Your task to perform on an android device: open chrome privacy settings Image 0: 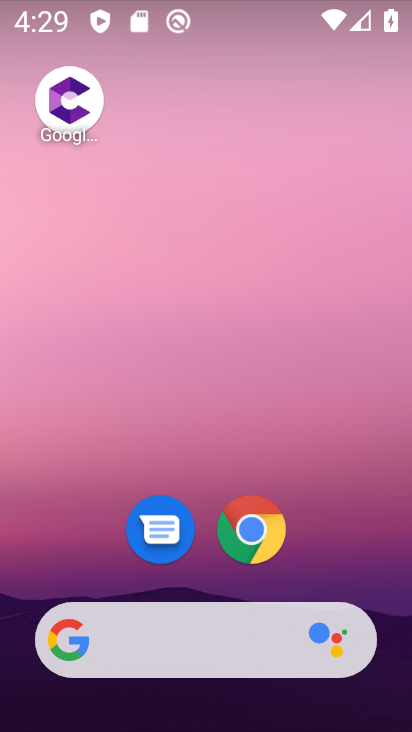
Step 0: drag from (195, 441) to (214, 240)
Your task to perform on an android device: open chrome privacy settings Image 1: 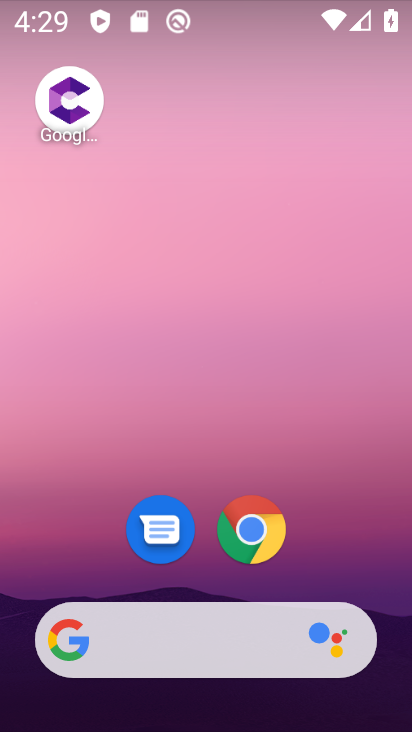
Step 1: click (201, 582)
Your task to perform on an android device: open chrome privacy settings Image 2: 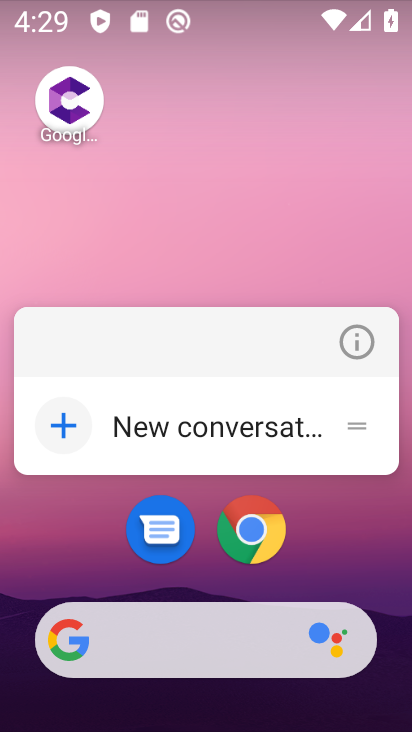
Step 2: click (255, 519)
Your task to perform on an android device: open chrome privacy settings Image 3: 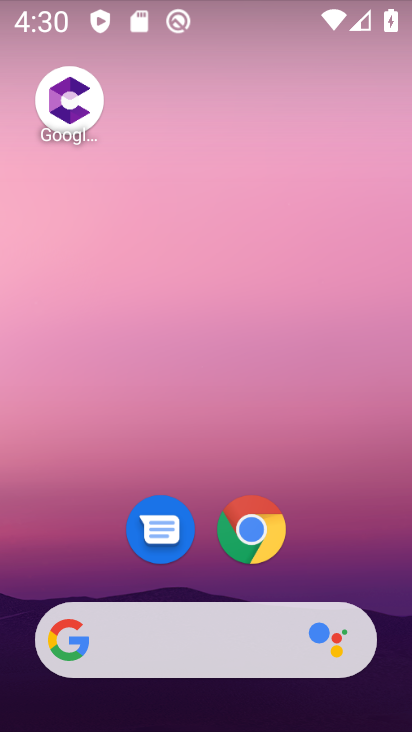
Step 3: click (253, 525)
Your task to perform on an android device: open chrome privacy settings Image 4: 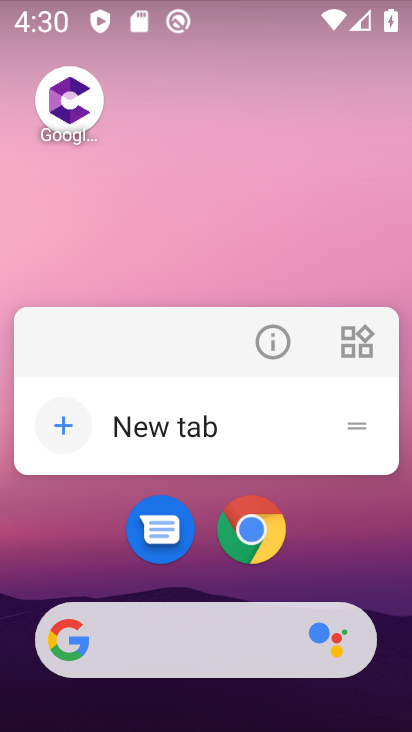
Step 4: click (289, 566)
Your task to perform on an android device: open chrome privacy settings Image 5: 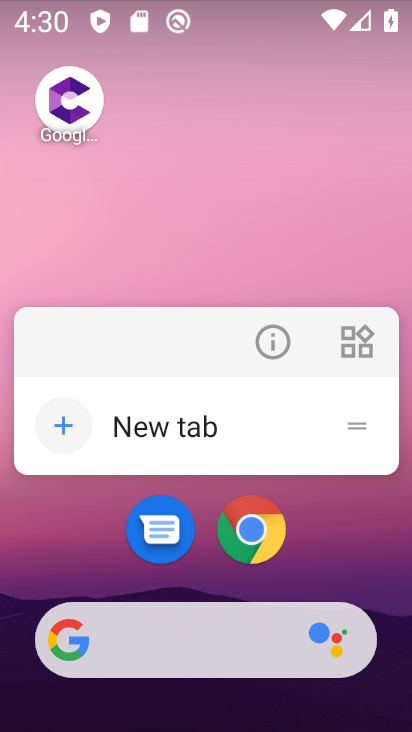
Step 5: drag from (235, 585) to (237, 170)
Your task to perform on an android device: open chrome privacy settings Image 6: 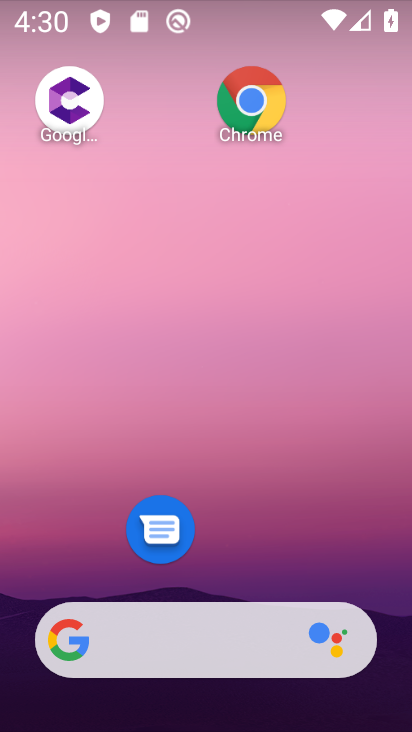
Step 6: click (258, 105)
Your task to perform on an android device: open chrome privacy settings Image 7: 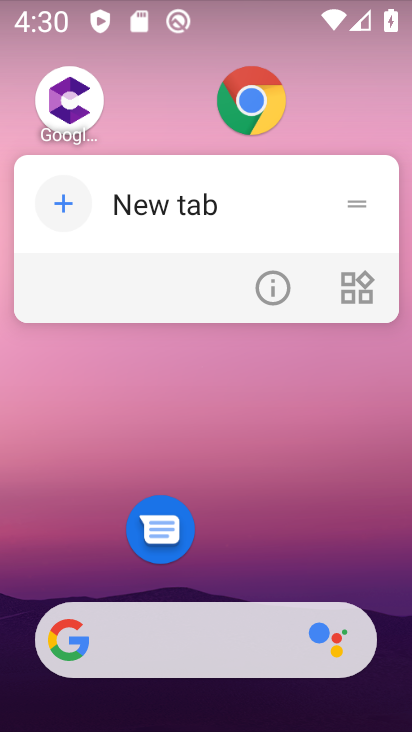
Step 7: click (244, 104)
Your task to perform on an android device: open chrome privacy settings Image 8: 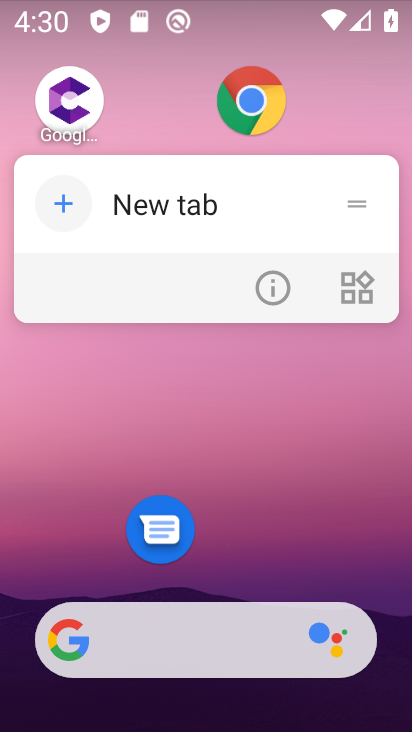
Step 8: drag from (244, 537) to (301, 93)
Your task to perform on an android device: open chrome privacy settings Image 9: 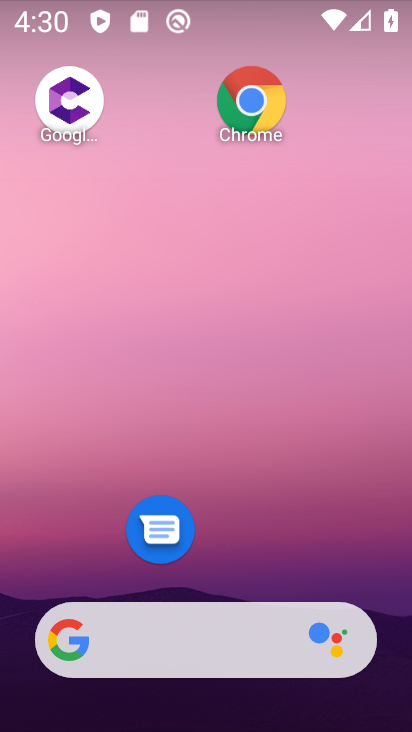
Step 9: click (258, 101)
Your task to perform on an android device: open chrome privacy settings Image 10: 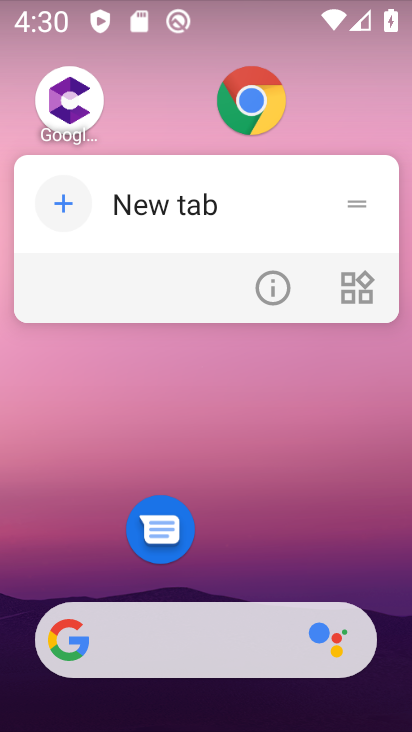
Step 10: click (251, 100)
Your task to perform on an android device: open chrome privacy settings Image 11: 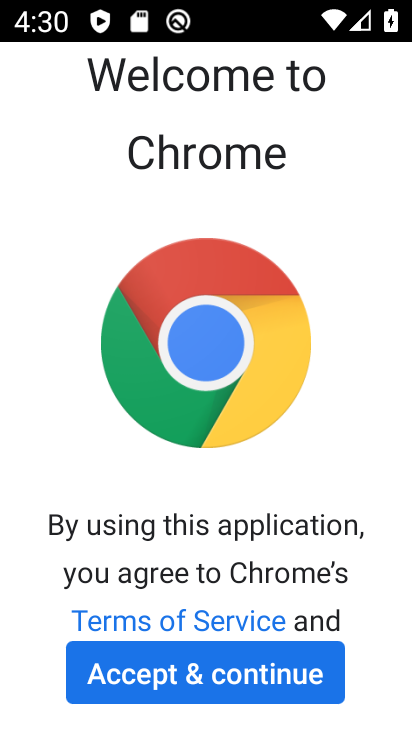
Step 11: click (131, 689)
Your task to perform on an android device: open chrome privacy settings Image 12: 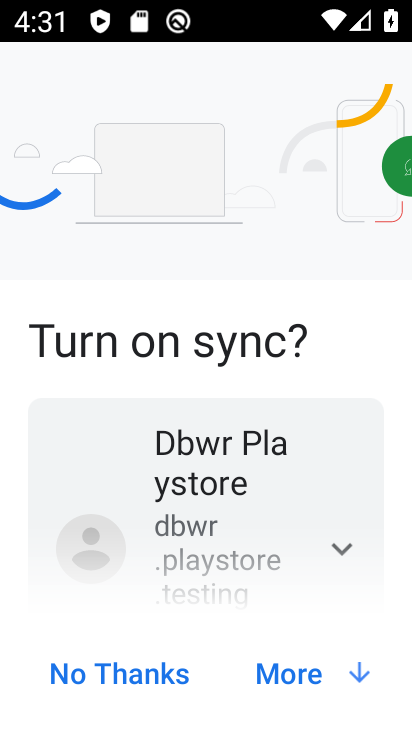
Step 12: click (310, 668)
Your task to perform on an android device: open chrome privacy settings Image 13: 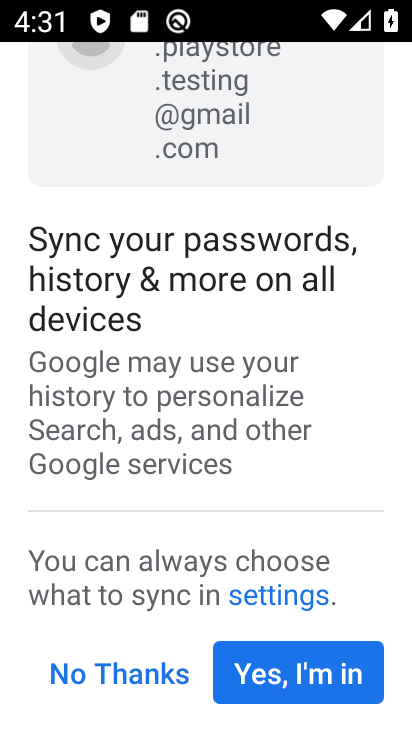
Step 13: click (309, 676)
Your task to perform on an android device: open chrome privacy settings Image 14: 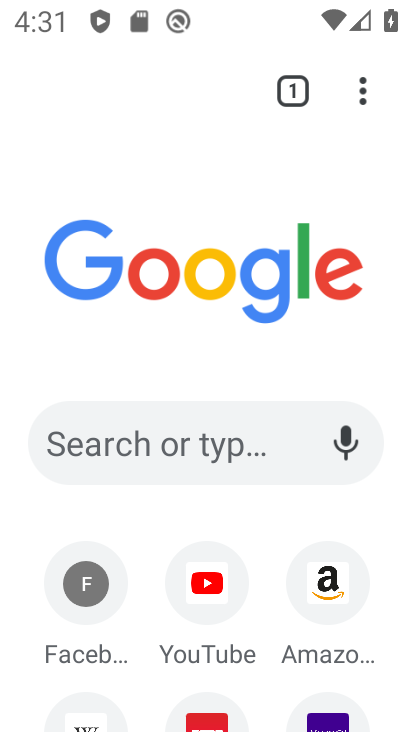
Step 14: click (362, 85)
Your task to perform on an android device: open chrome privacy settings Image 15: 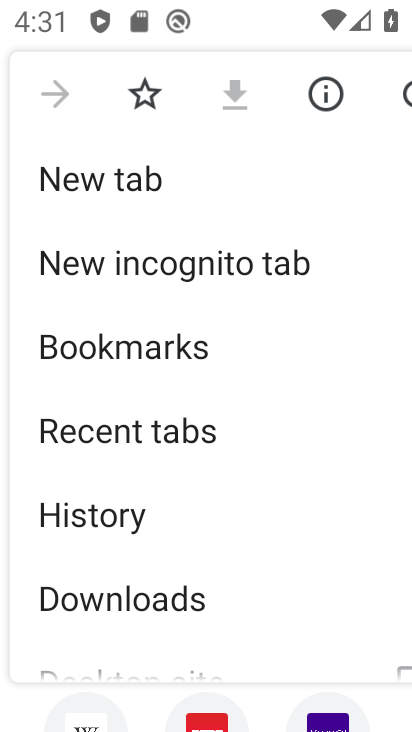
Step 15: drag from (186, 569) to (132, 557)
Your task to perform on an android device: open chrome privacy settings Image 16: 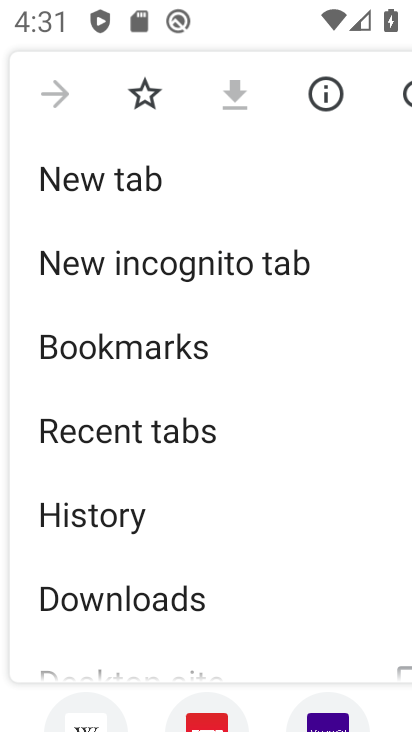
Step 16: drag from (137, 387) to (165, 131)
Your task to perform on an android device: open chrome privacy settings Image 17: 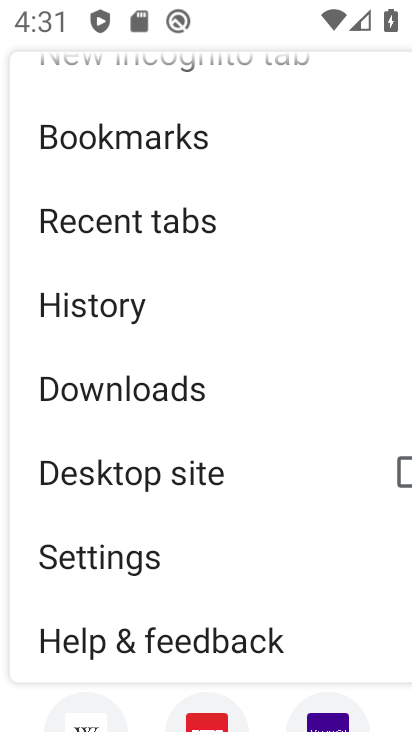
Step 17: click (91, 549)
Your task to perform on an android device: open chrome privacy settings Image 18: 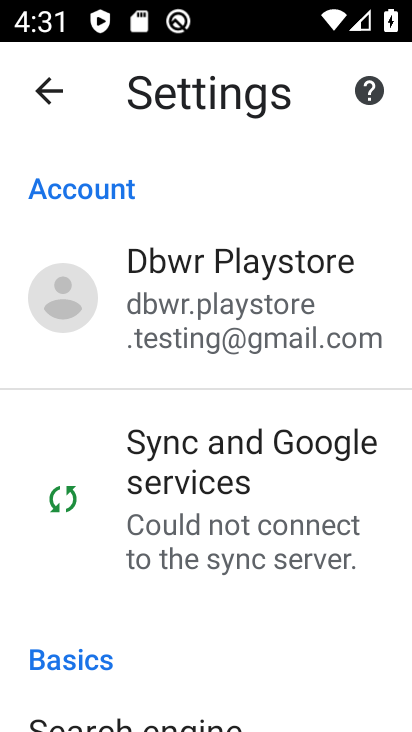
Step 18: drag from (137, 611) to (195, 328)
Your task to perform on an android device: open chrome privacy settings Image 19: 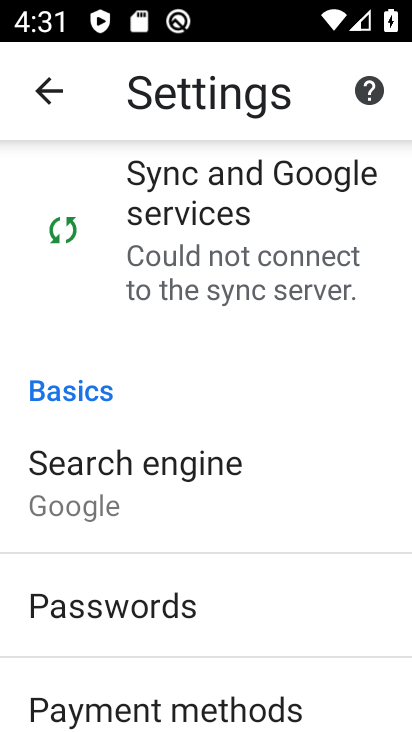
Step 19: drag from (189, 628) to (276, 315)
Your task to perform on an android device: open chrome privacy settings Image 20: 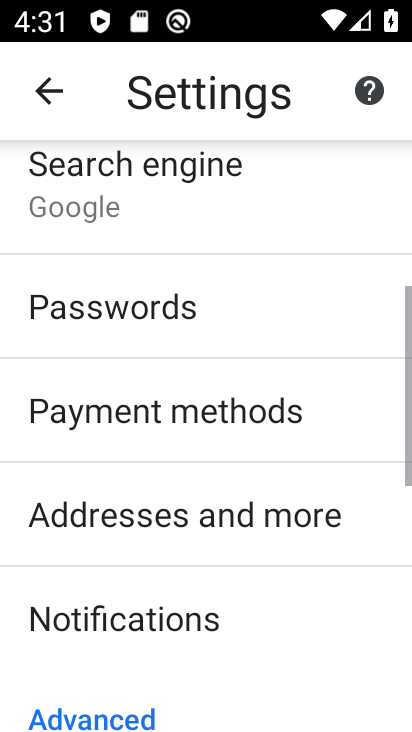
Step 20: drag from (214, 583) to (270, 385)
Your task to perform on an android device: open chrome privacy settings Image 21: 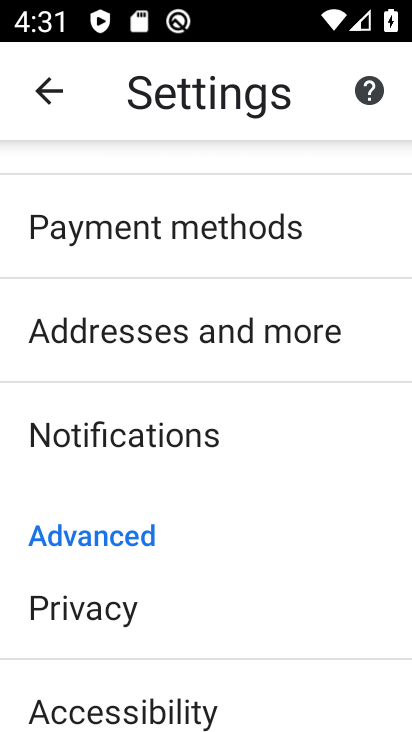
Step 21: click (151, 617)
Your task to perform on an android device: open chrome privacy settings Image 22: 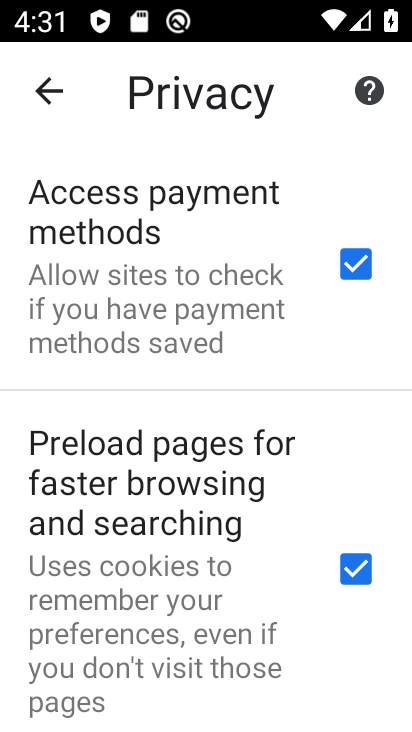
Step 22: task complete